Your task to perform on an android device: empty trash in google photos Image 0: 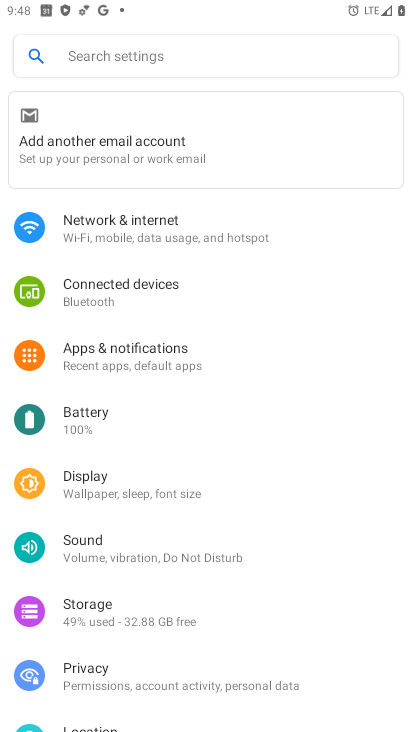
Step 0: press home button
Your task to perform on an android device: empty trash in google photos Image 1: 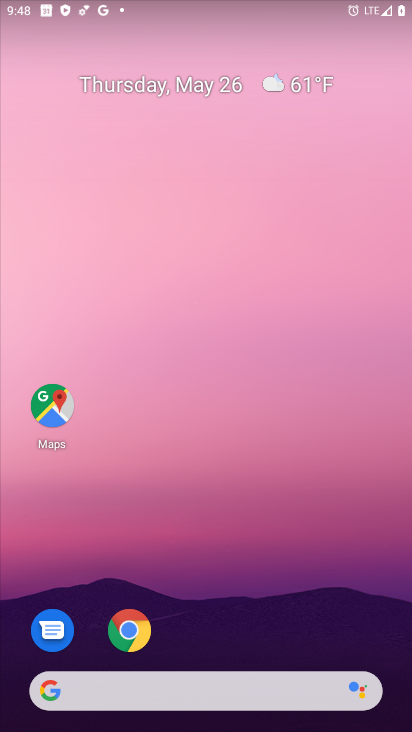
Step 1: drag from (206, 668) to (194, 250)
Your task to perform on an android device: empty trash in google photos Image 2: 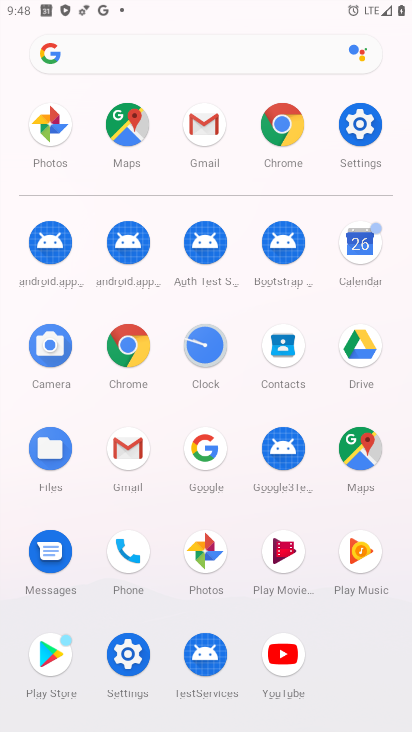
Step 2: click (213, 543)
Your task to perform on an android device: empty trash in google photos Image 3: 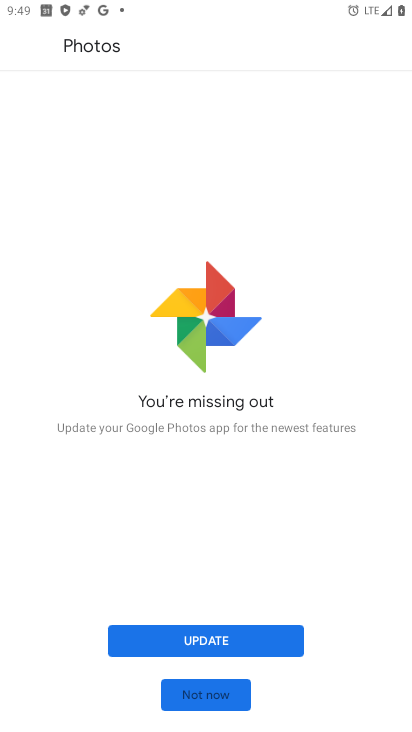
Step 3: click (209, 677)
Your task to perform on an android device: empty trash in google photos Image 4: 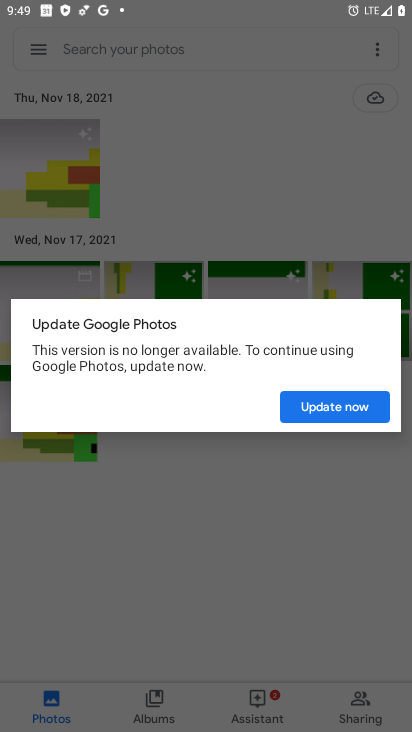
Step 4: click (38, 71)
Your task to perform on an android device: empty trash in google photos Image 5: 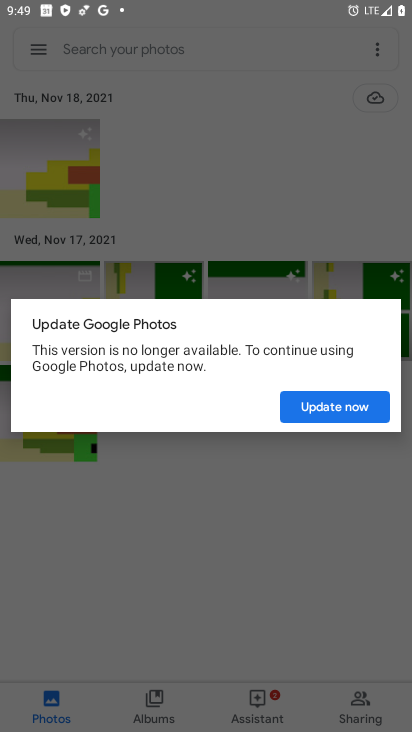
Step 5: click (41, 47)
Your task to perform on an android device: empty trash in google photos Image 6: 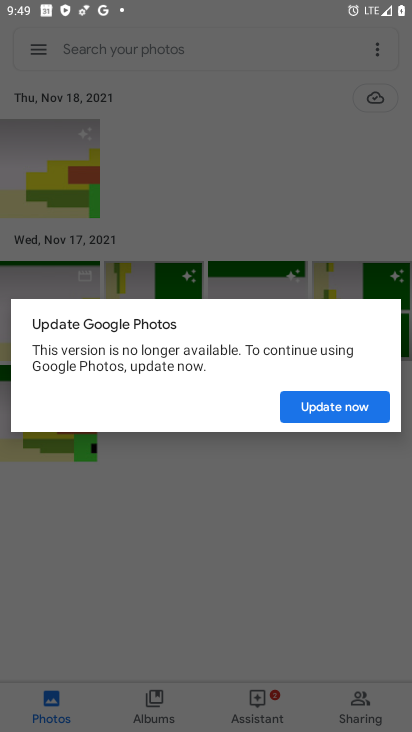
Step 6: click (331, 391)
Your task to perform on an android device: empty trash in google photos Image 7: 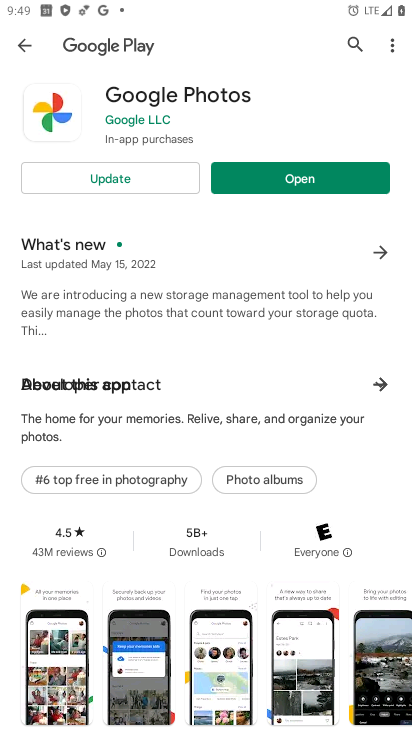
Step 7: click (310, 191)
Your task to perform on an android device: empty trash in google photos Image 8: 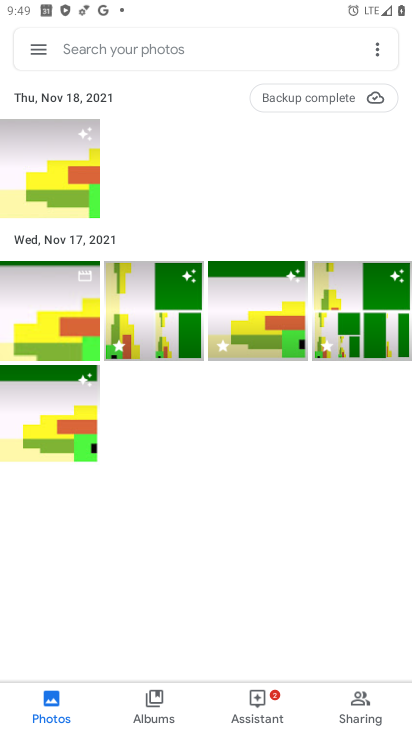
Step 8: click (38, 53)
Your task to perform on an android device: empty trash in google photos Image 9: 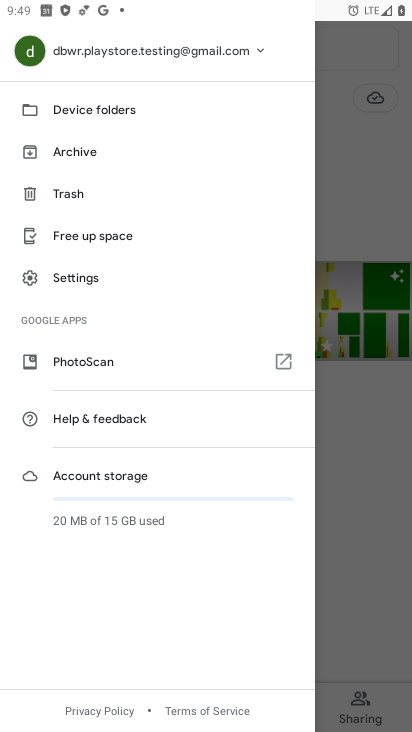
Step 9: click (68, 199)
Your task to perform on an android device: empty trash in google photos Image 10: 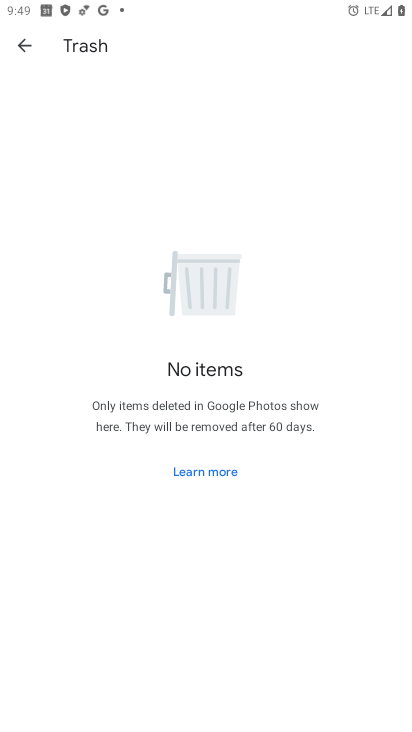
Step 10: task complete